Your task to perform on an android device: check the backup settings in the google photos Image 0: 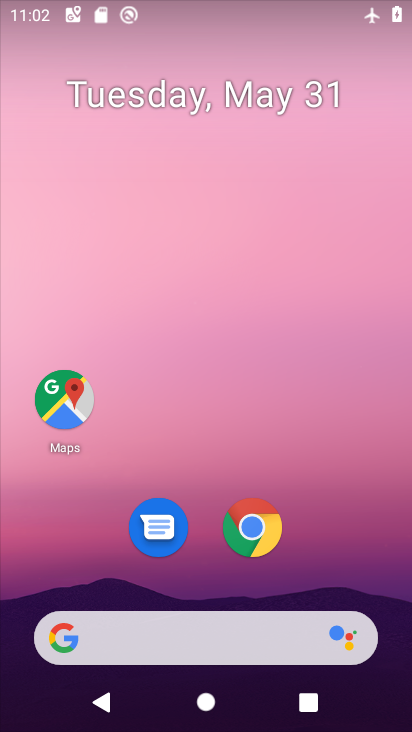
Step 0: drag from (360, 605) to (377, 5)
Your task to perform on an android device: check the backup settings in the google photos Image 1: 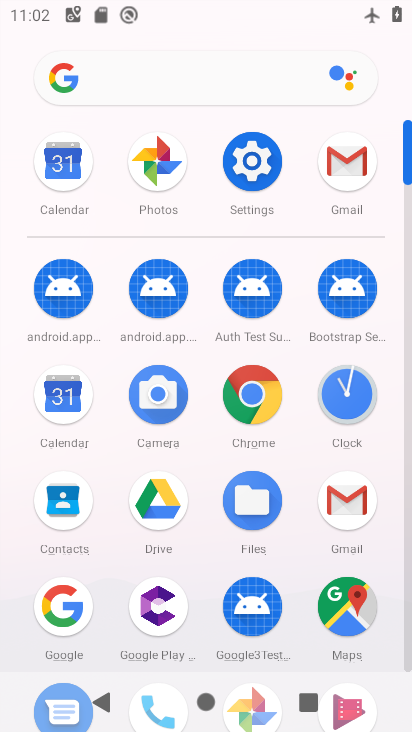
Step 1: click (148, 164)
Your task to perform on an android device: check the backup settings in the google photos Image 2: 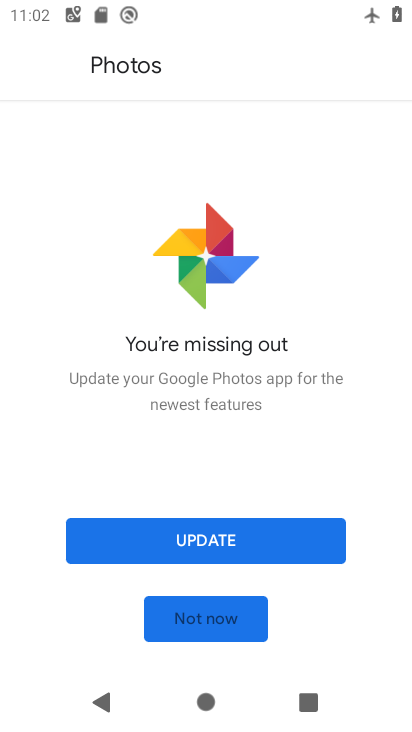
Step 2: click (215, 624)
Your task to perform on an android device: check the backup settings in the google photos Image 3: 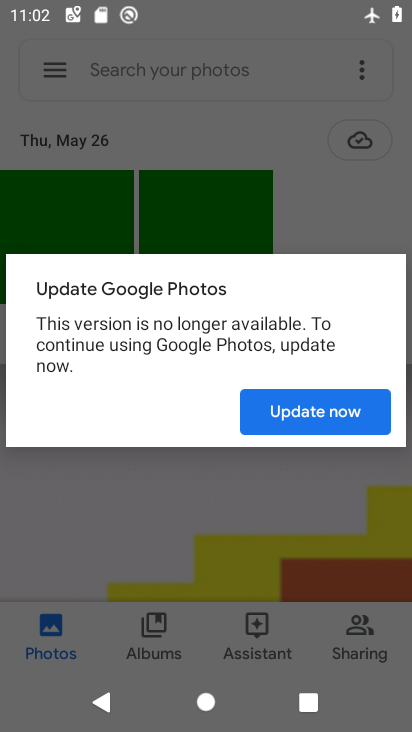
Step 3: click (317, 419)
Your task to perform on an android device: check the backup settings in the google photos Image 4: 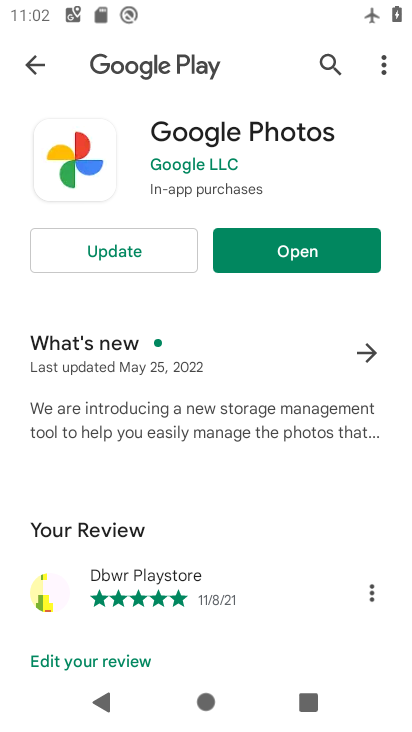
Step 4: click (278, 260)
Your task to perform on an android device: check the backup settings in the google photos Image 5: 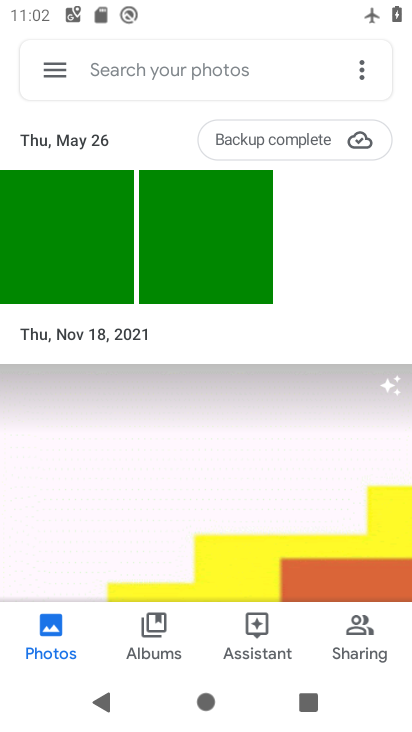
Step 5: click (48, 71)
Your task to perform on an android device: check the backup settings in the google photos Image 6: 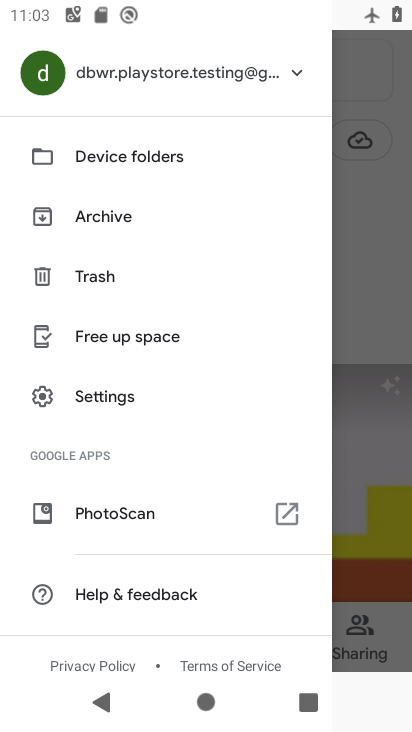
Step 6: click (108, 401)
Your task to perform on an android device: check the backup settings in the google photos Image 7: 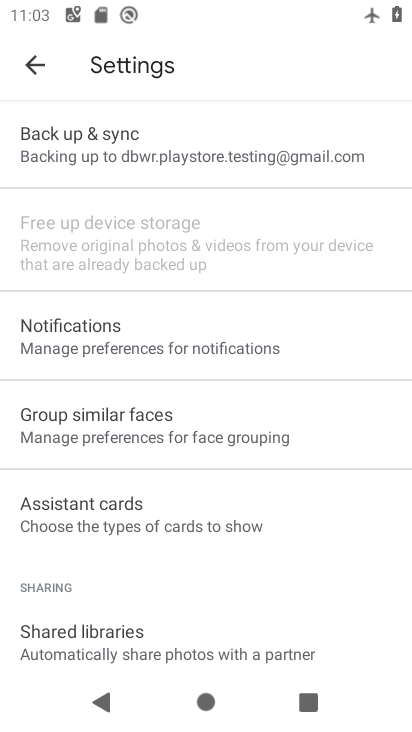
Step 7: click (95, 159)
Your task to perform on an android device: check the backup settings in the google photos Image 8: 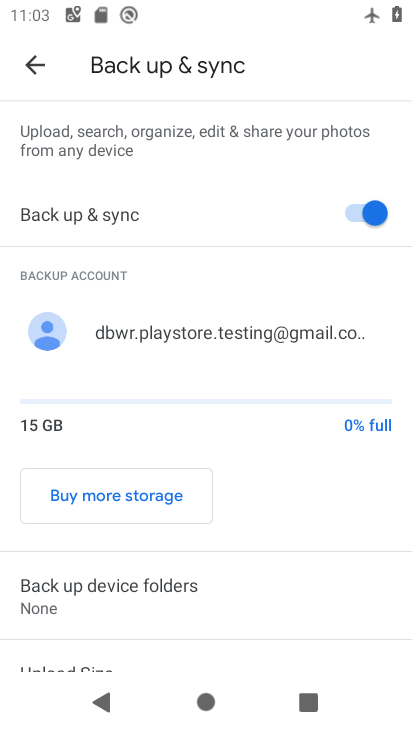
Step 8: task complete